Your task to perform on an android device: Look up the new steph curry shoes Image 0: 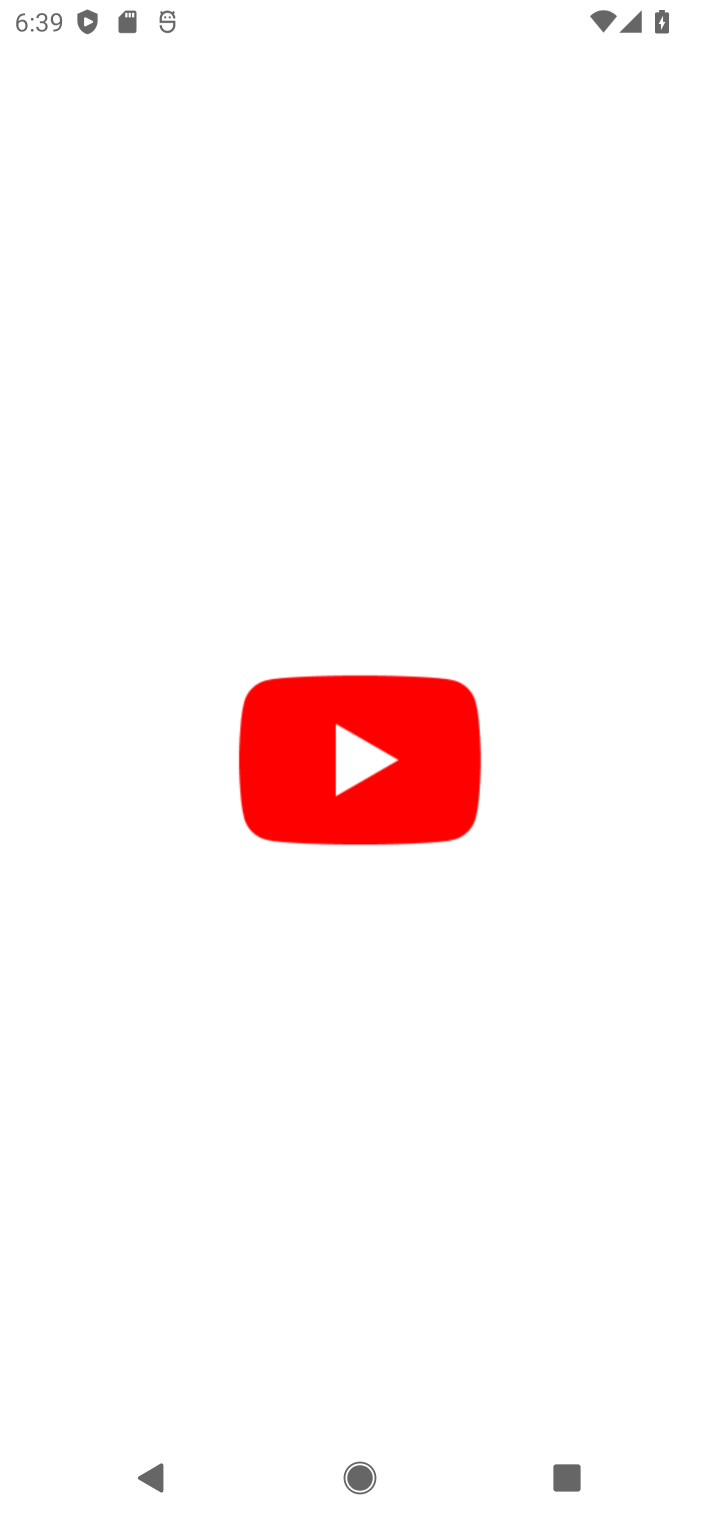
Step 0: press home button
Your task to perform on an android device: Look up the new steph curry shoes Image 1: 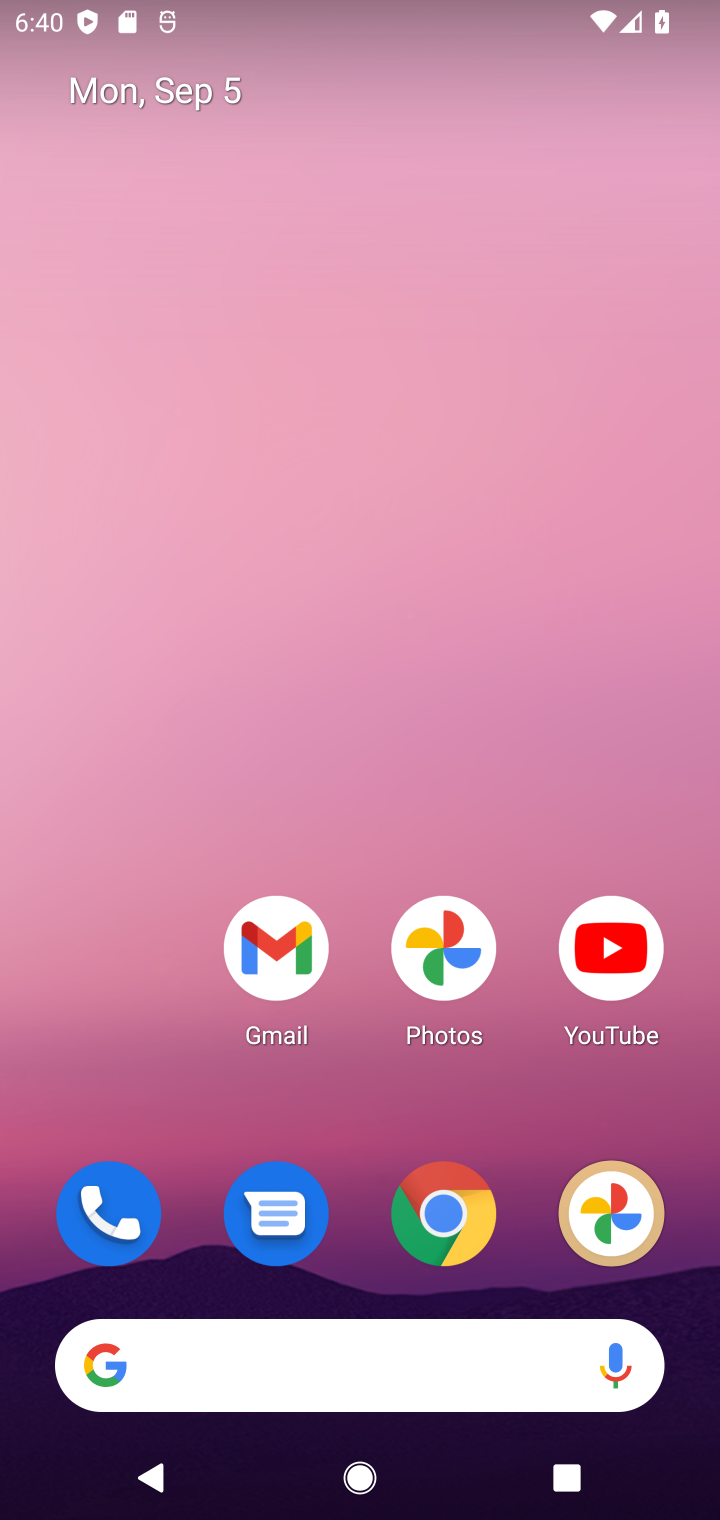
Step 1: click (474, 1212)
Your task to perform on an android device: Look up the new steph curry shoes Image 2: 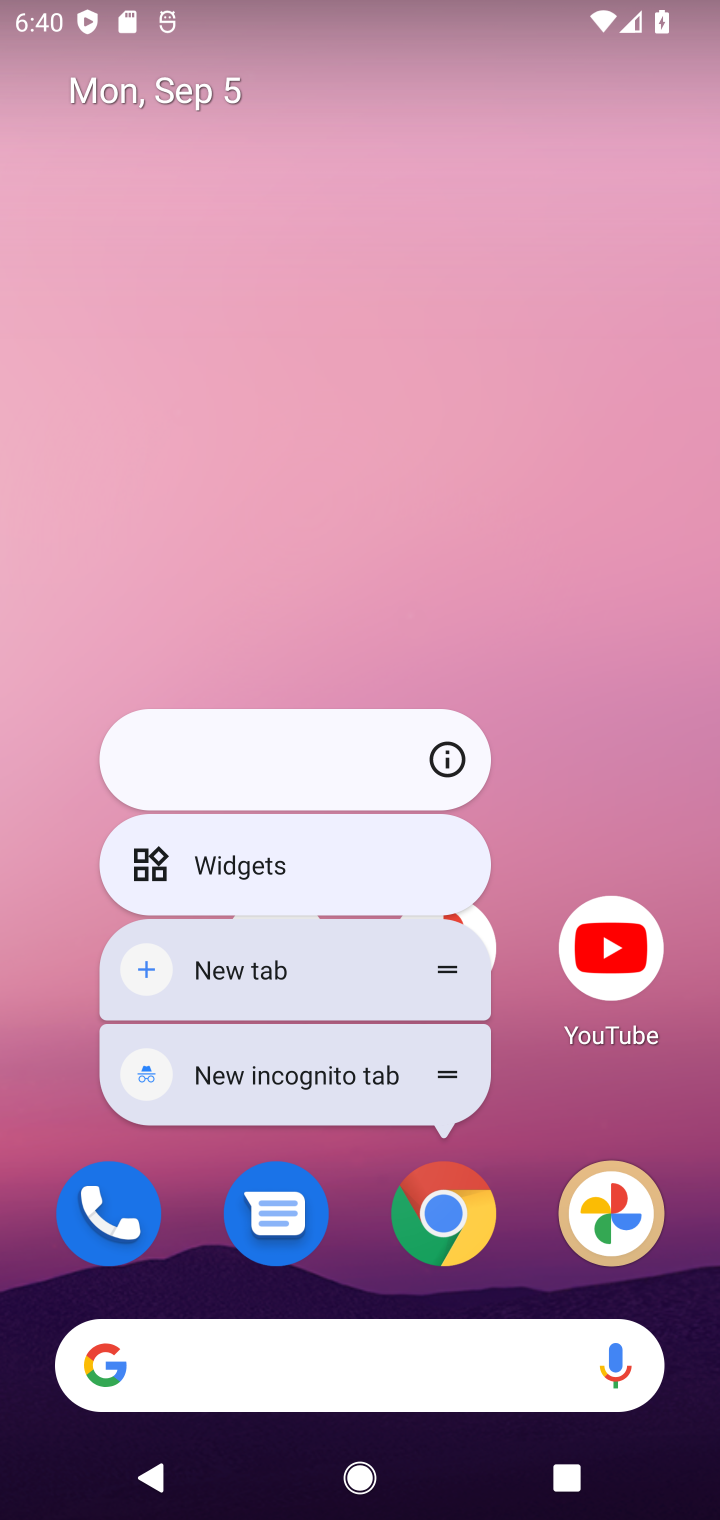
Step 2: click (474, 1212)
Your task to perform on an android device: Look up the new steph curry shoes Image 3: 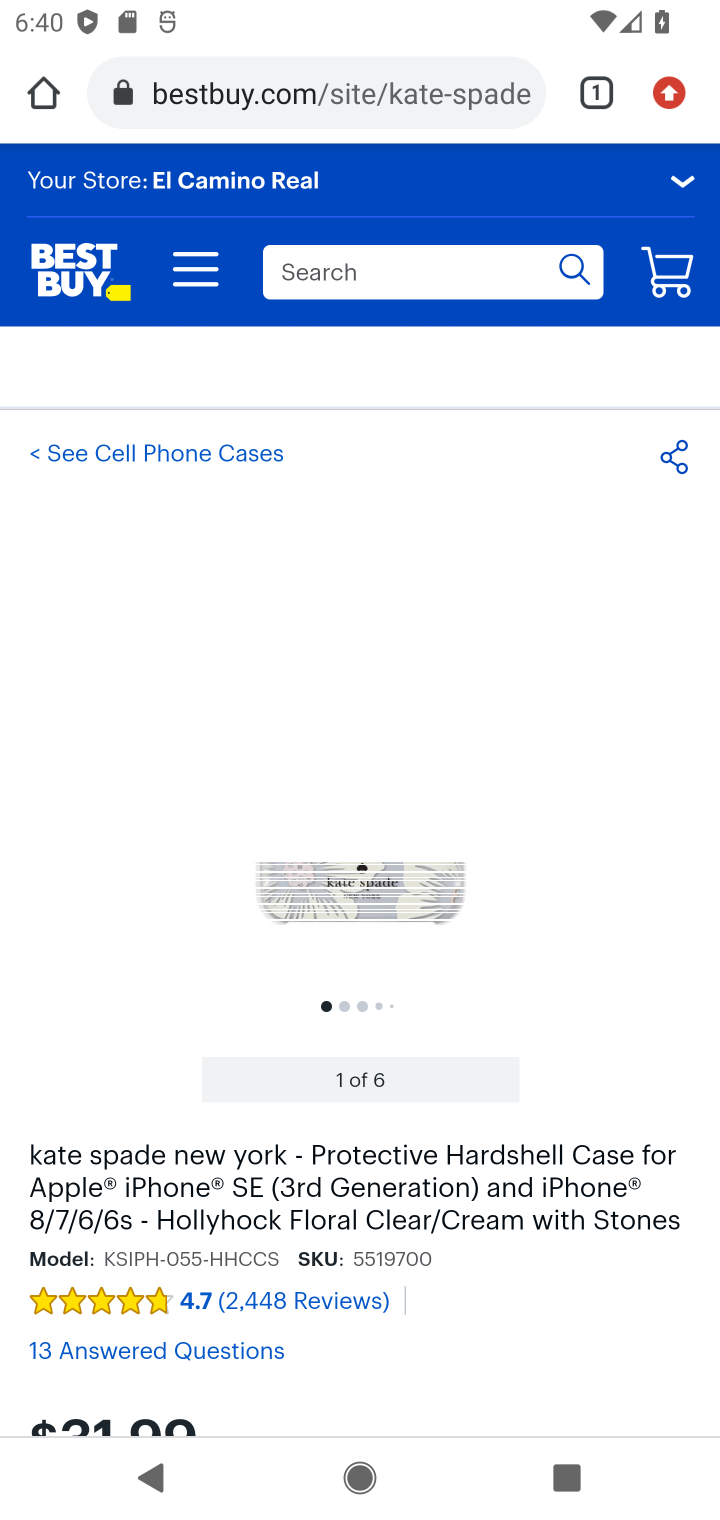
Step 3: click (329, 78)
Your task to perform on an android device: Look up the new steph curry shoes Image 4: 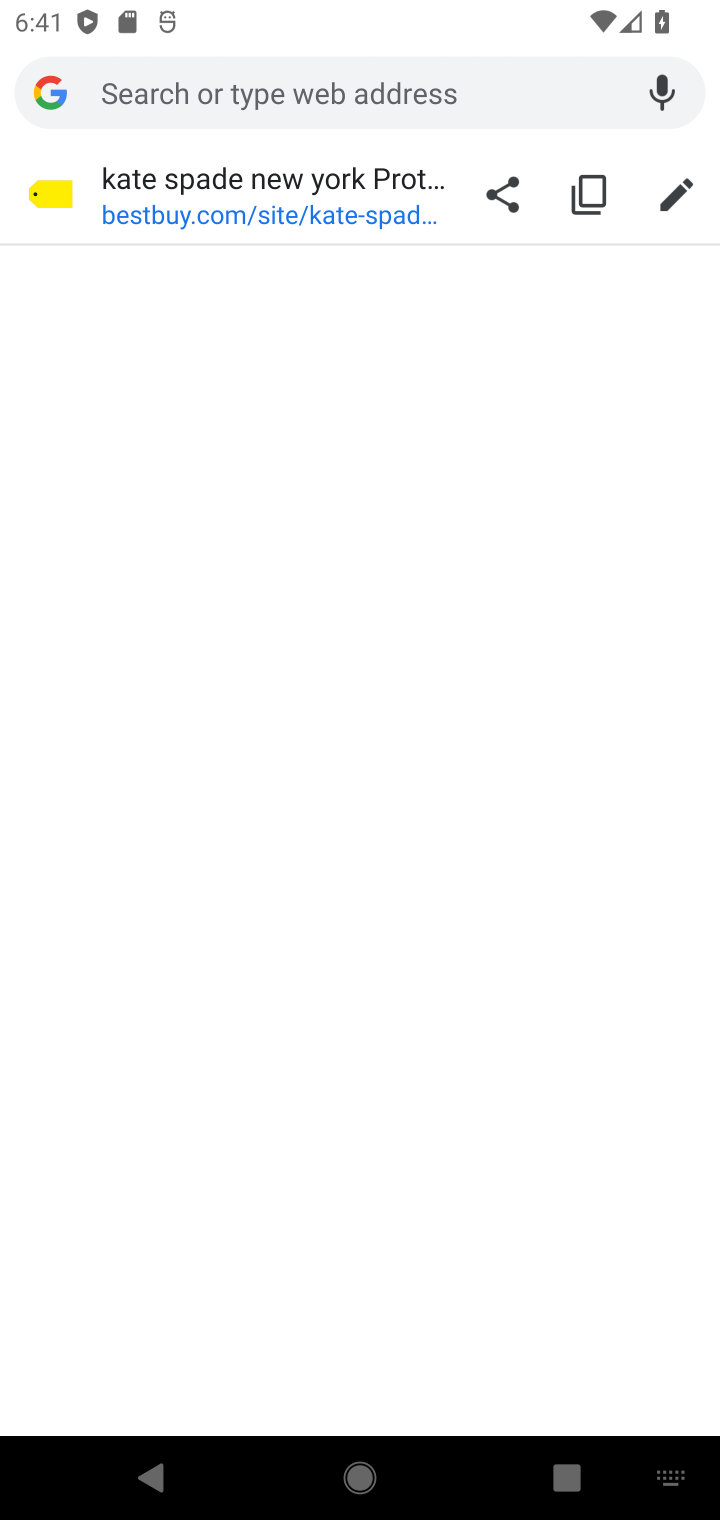
Step 4: type "new steph curry shoes"
Your task to perform on an android device: Look up the new steph curry shoes Image 5: 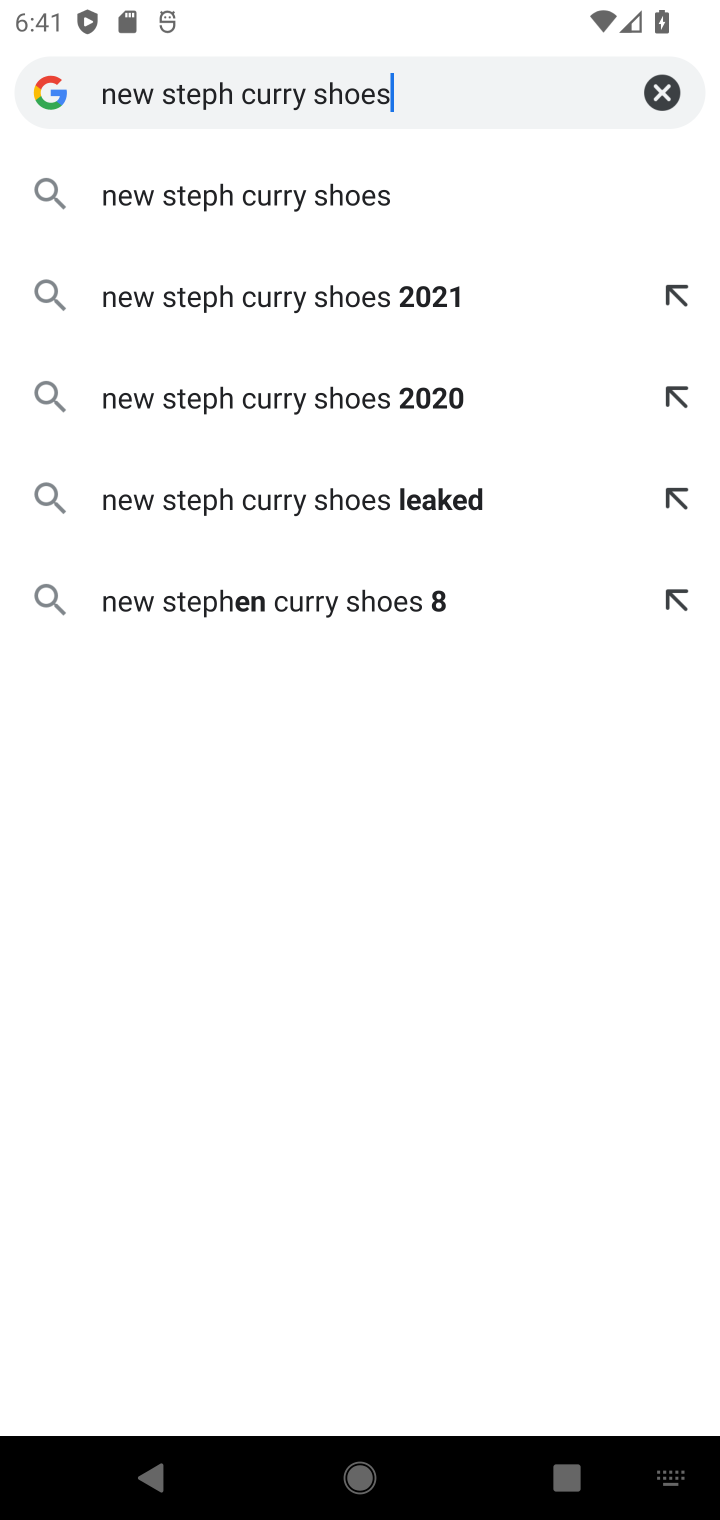
Step 5: click (245, 207)
Your task to perform on an android device: Look up the new steph curry shoes Image 6: 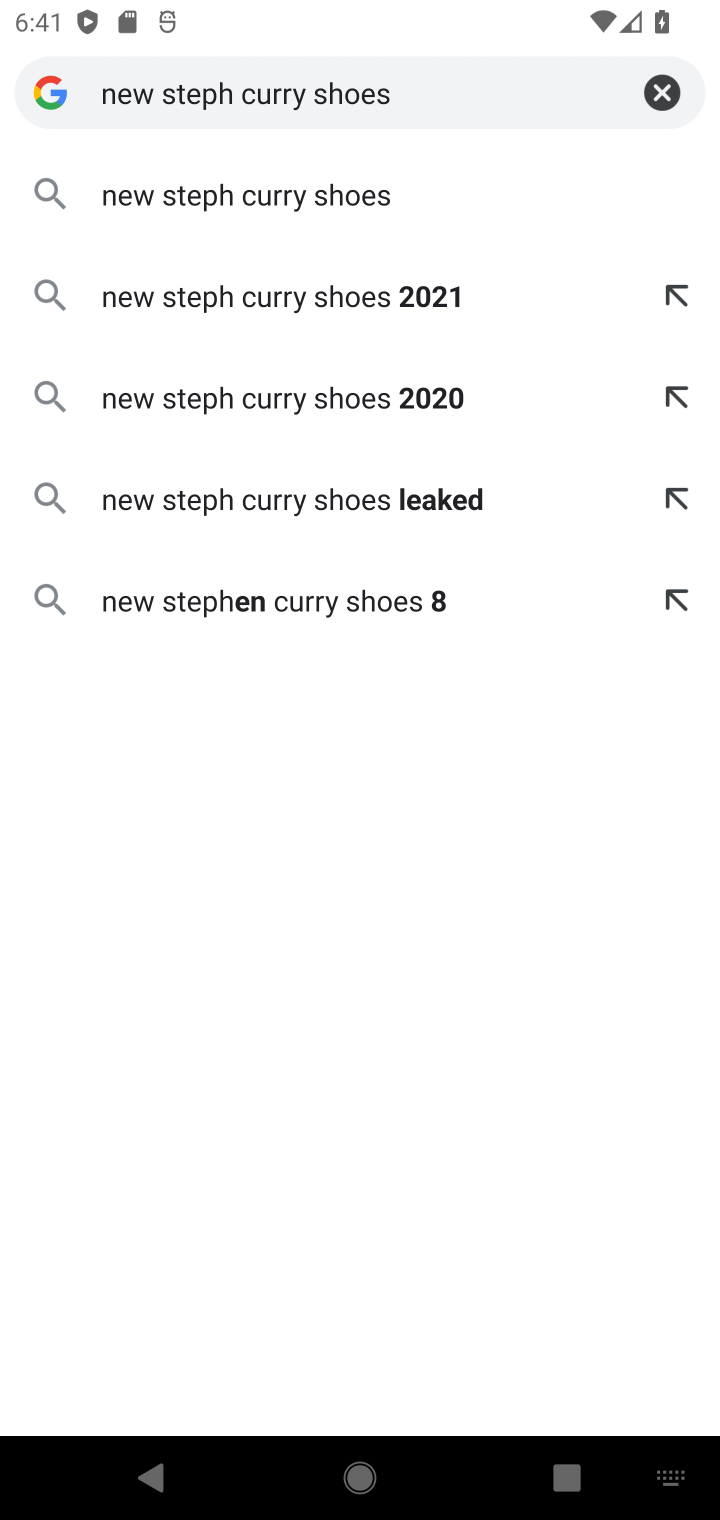
Step 6: click (245, 203)
Your task to perform on an android device: Look up the new steph curry shoes Image 7: 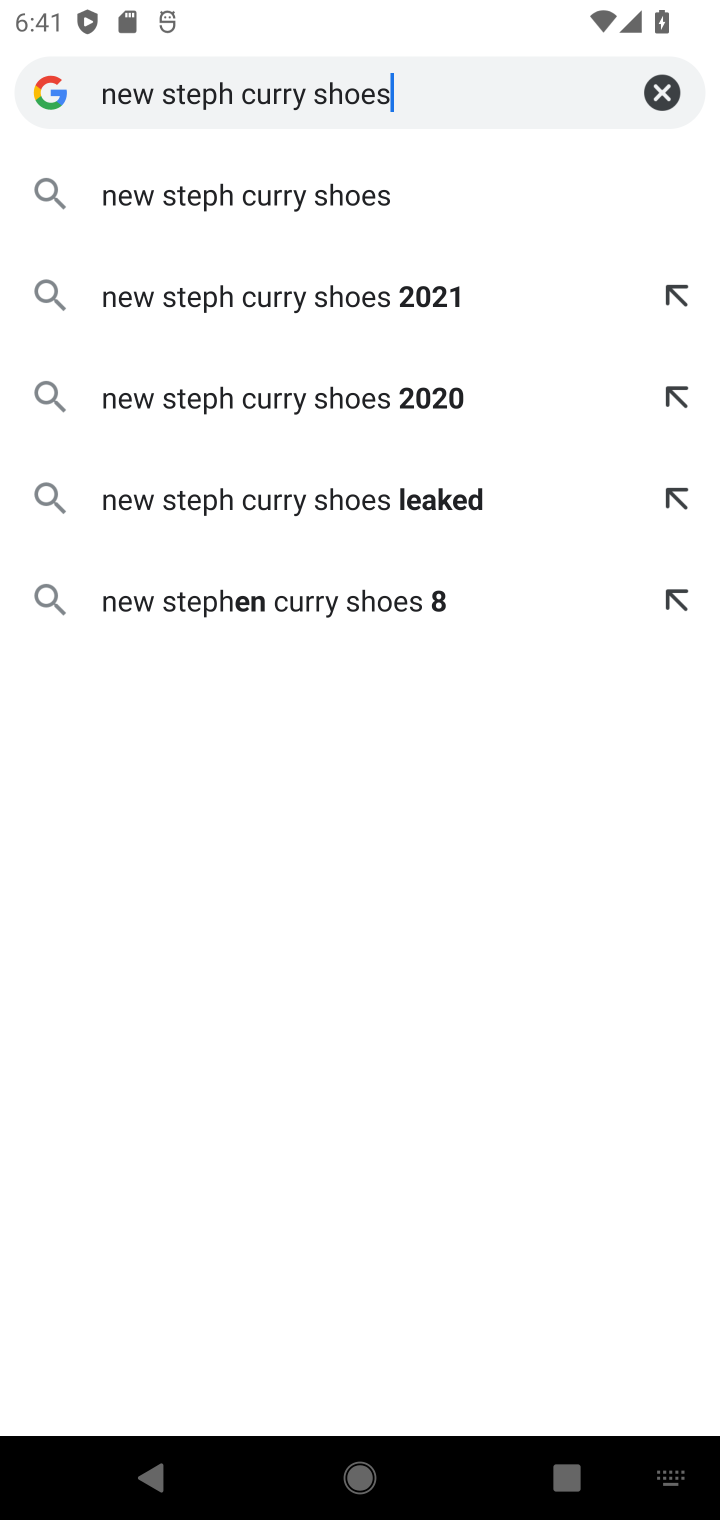
Step 7: click (263, 210)
Your task to perform on an android device: Look up the new steph curry shoes Image 8: 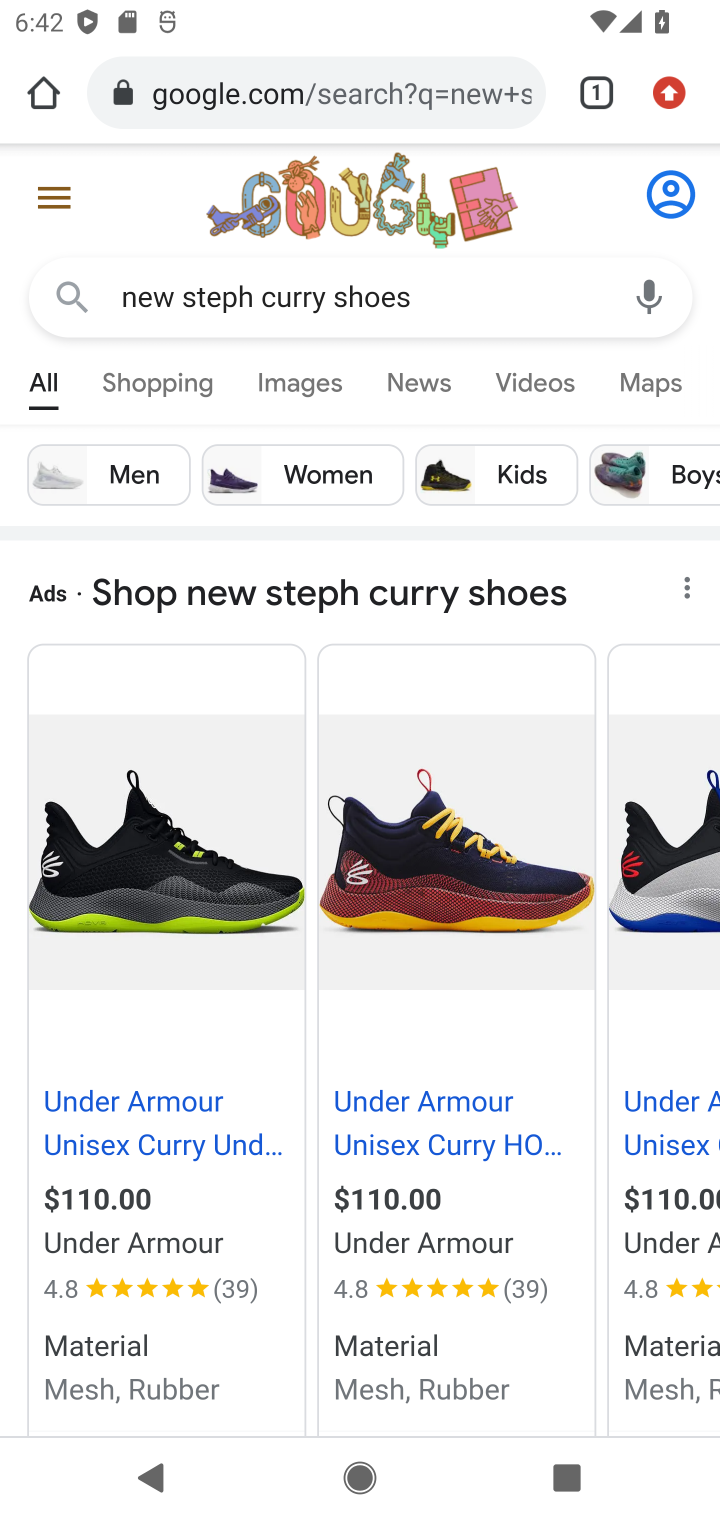
Step 8: drag from (170, 1182) to (220, 857)
Your task to perform on an android device: Look up the new steph curry shoes Image 9: 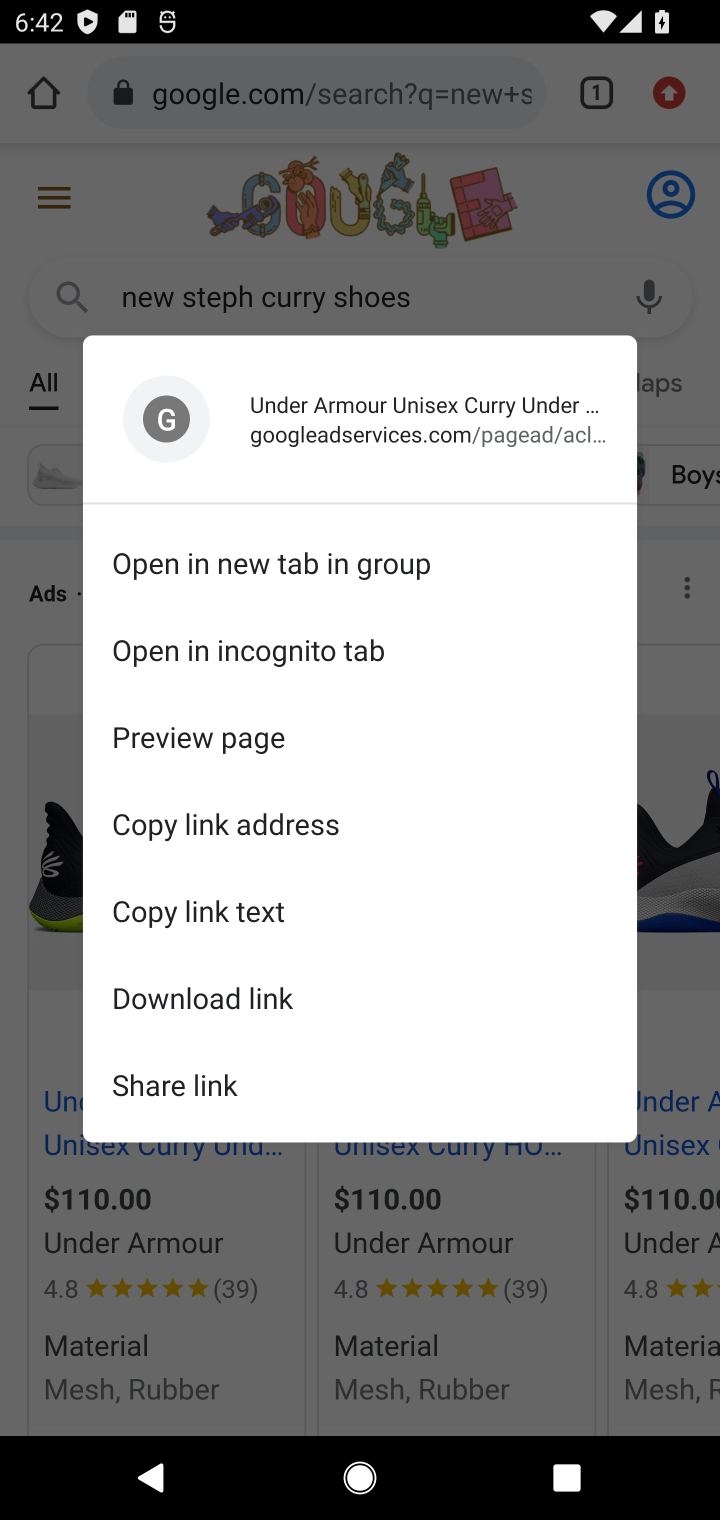
Step 9: click (42, 1101)
Your task to perform on an android device: Look up the new steph curry shoes Image 10: 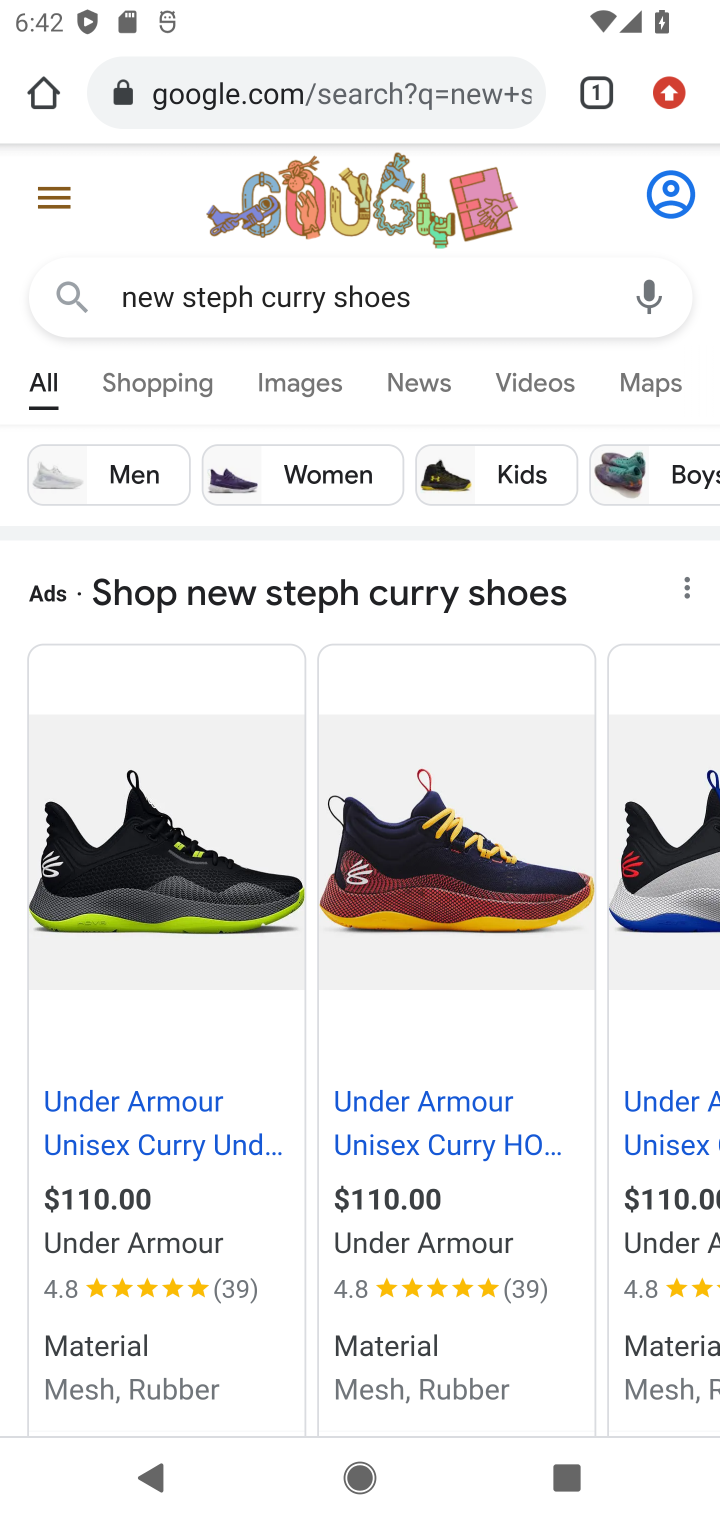
Step 10: click (147, 931)
Your task to perform on an android device: Look up the new steph curry shoes Image 11: 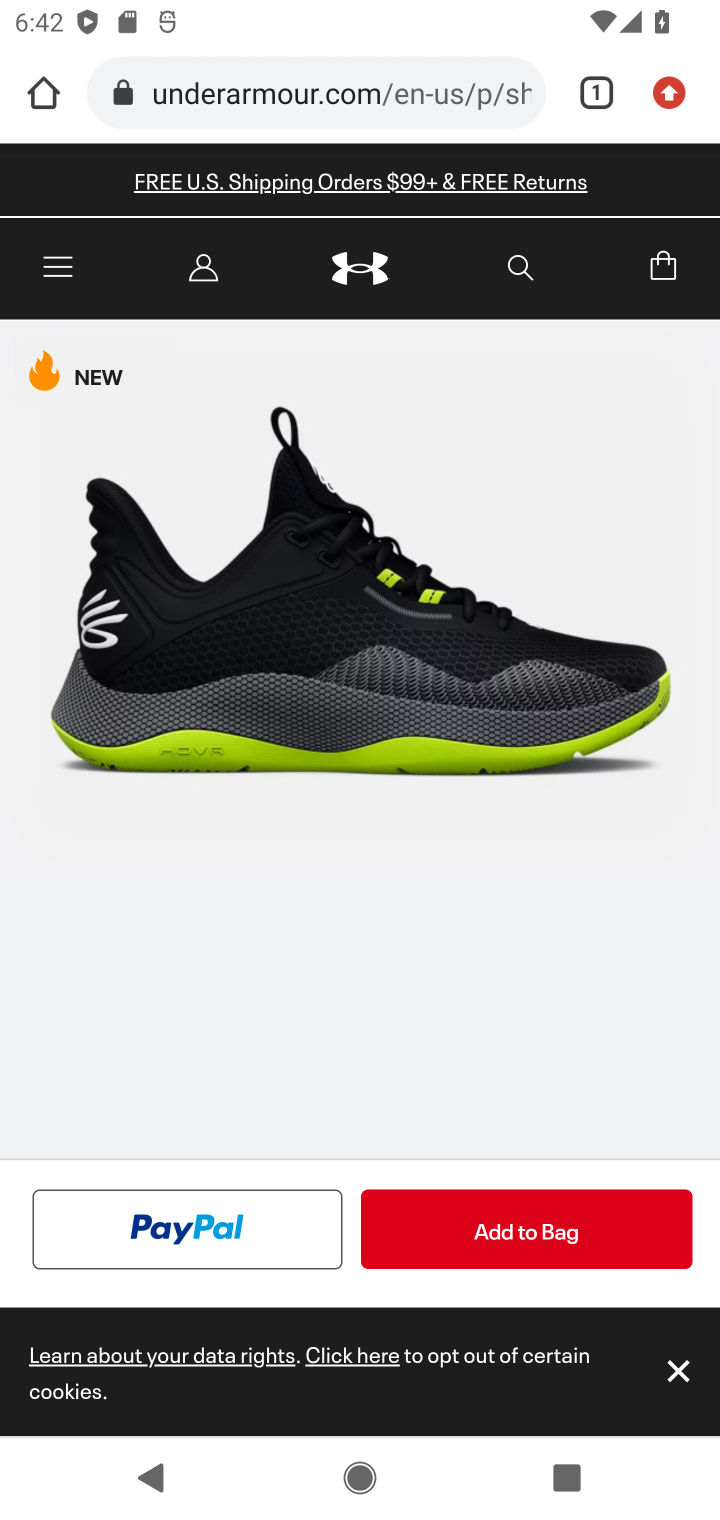
Step 11: task complete